Your task to perform on an android device: Go to accessibility settings Image 0: 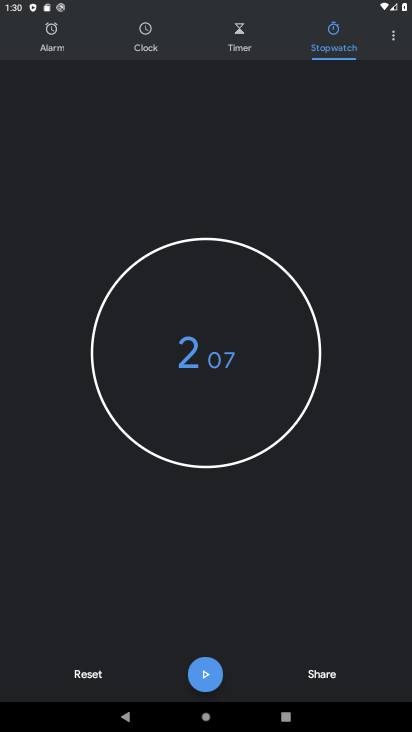
Step 0: press home button
Your task to perform on an android device: Go to accessibility settings Image 1: 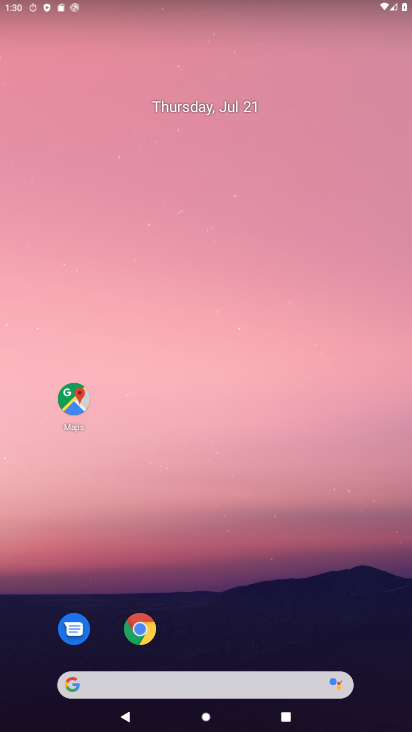
Step 1: drag from (244, 360) to (389, 67)
Your task to perform on an android device: Go to accessibility settings Image 2: 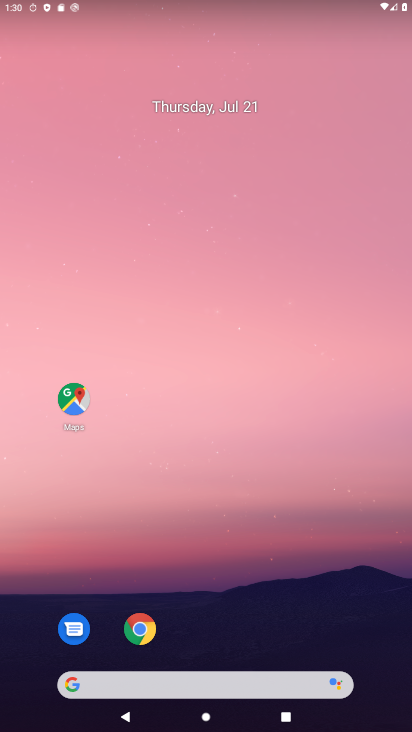
Step 2: drag from (32, 691) to (166, 255)
Your task to perform on an android device: Go to accessibility settings Image 3: 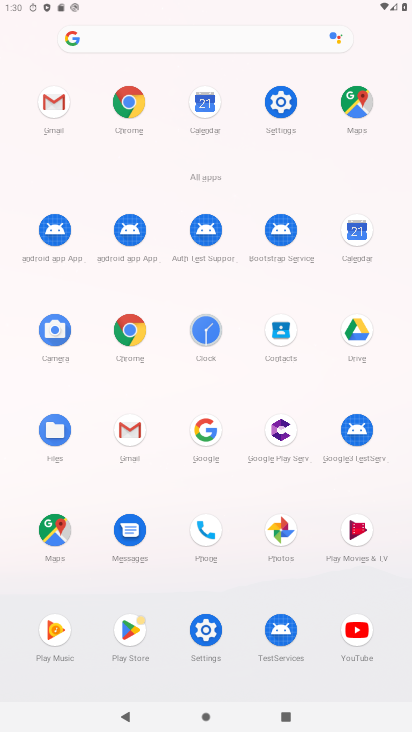
Step 3: click (205, 632)
Your task to perform on an android device: Go to accessibility settings Image 4: 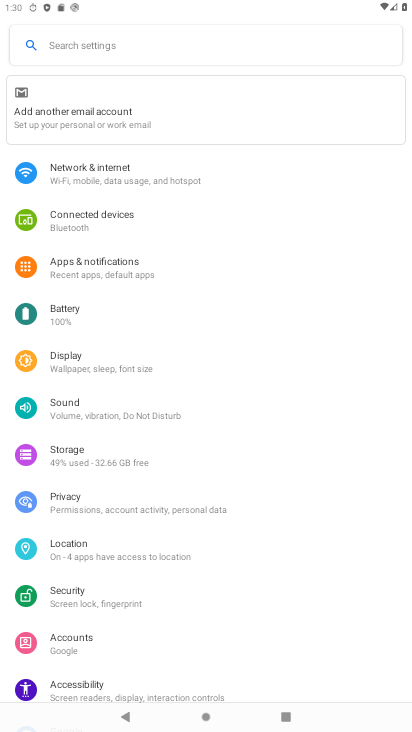
Step 4: click (82, 678)
Your task to perform on an android device: Go to accessibility settings Image 5: 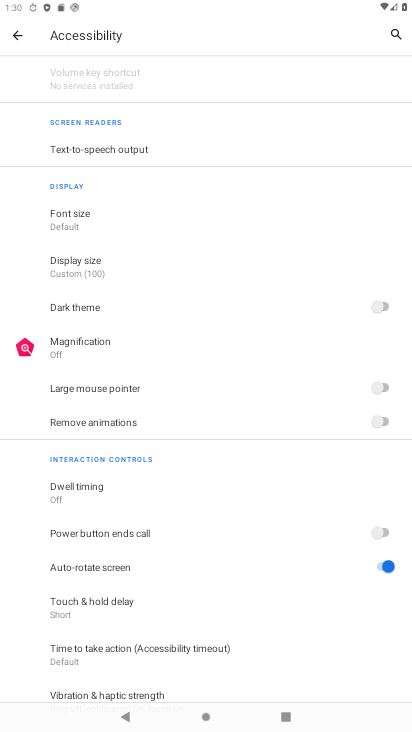
Step 5: task complete